Your task to perform on an android device: allow cookies in the chrome app Image 0: 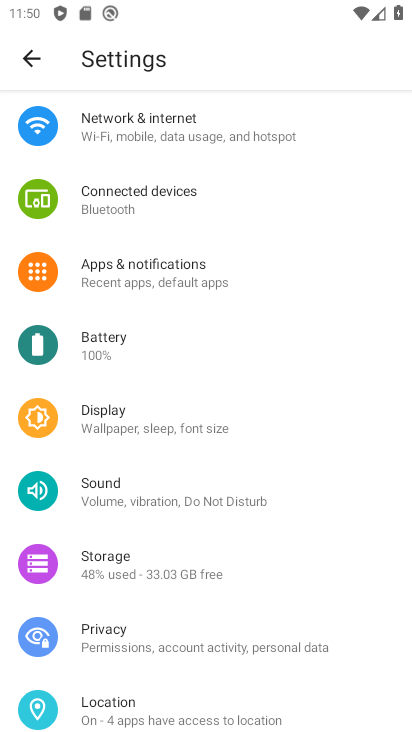
Step 0: press home button
Your task to perform on an android device: allow cookies in the chrome app Image 1: 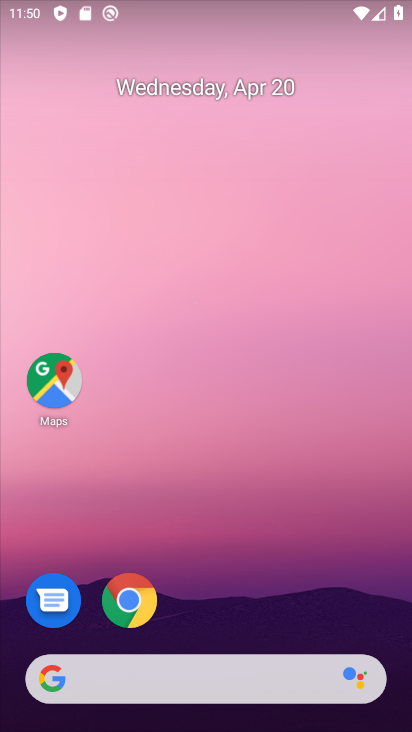
Step 1: click (132, 611)
Your task to perform on an android device: allow cookies in the chrome app Image 2: 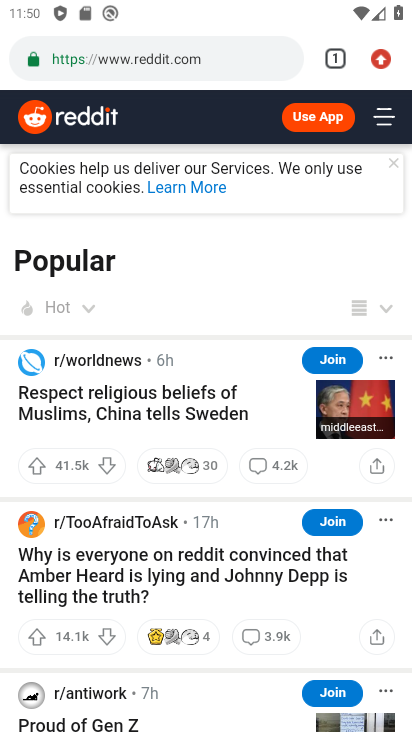
Step 2: click (378, 52)
Your task to perform on an android device: allow cookies in the chrome app Image 3: 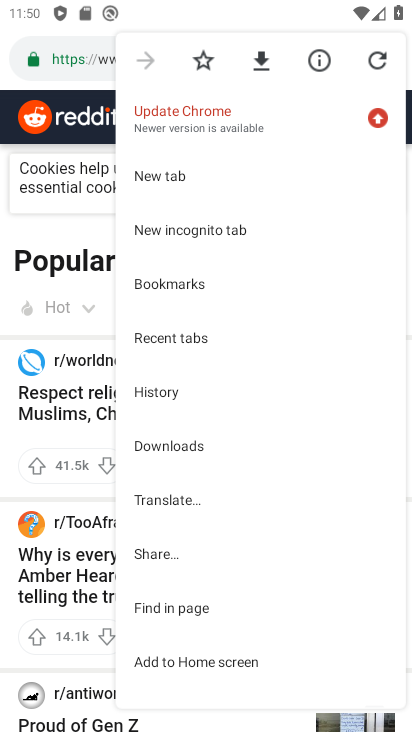
Step 3: drag from (259, 560) to (311, 203)
Your task to perform on an android device: allow cookies in the chrome app Image 4: 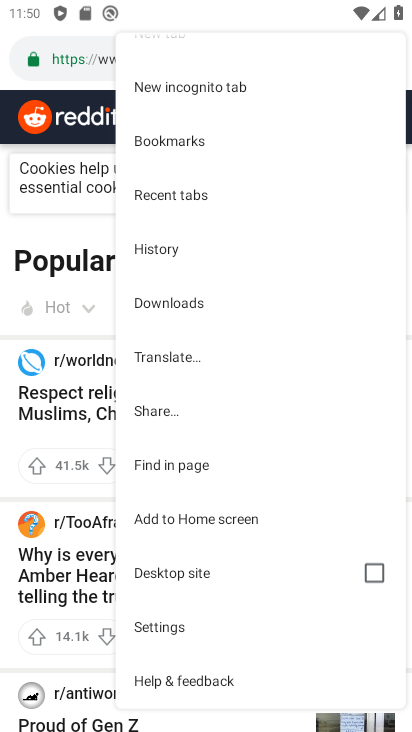
Step 4: click (206, 631)
Your task to perform on an android device: allow cookies in the chrome app Image 5: 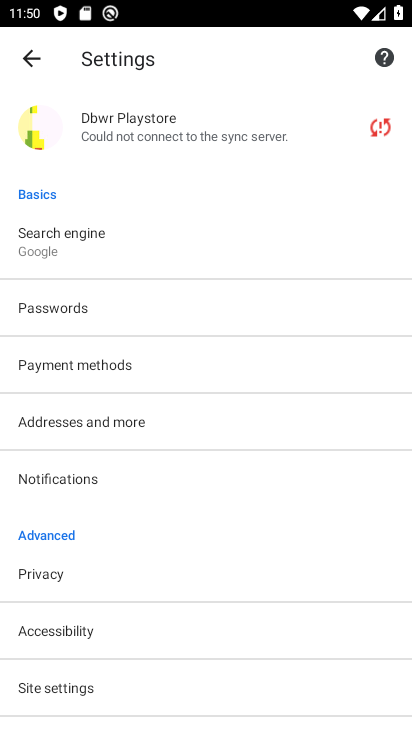
Step 5: drag from (242, 467) to (207, 226)
Your task to perform on an android device: allow cookies in the chrome app Image 6: 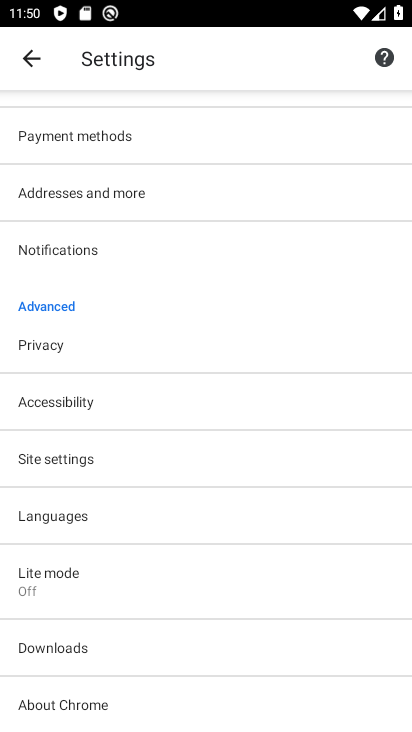
Step 6: click (166, 454)
Your task to perform on an android device: allow cookies in the chrome app Image 7: 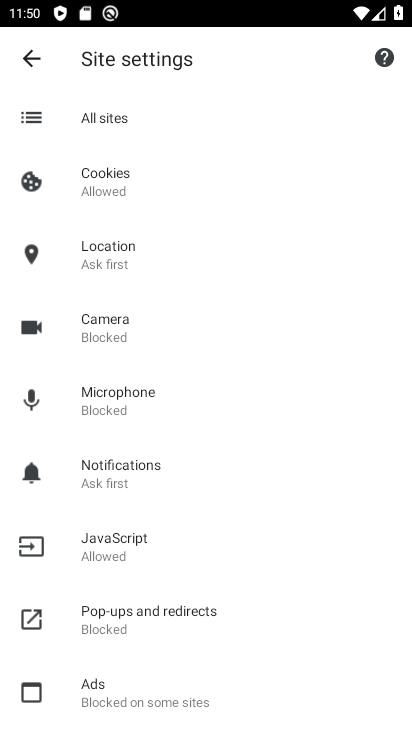
Step 7: click (154, 180)
Your task to perform on an android device: allow cookies in the chrome app Image 8: 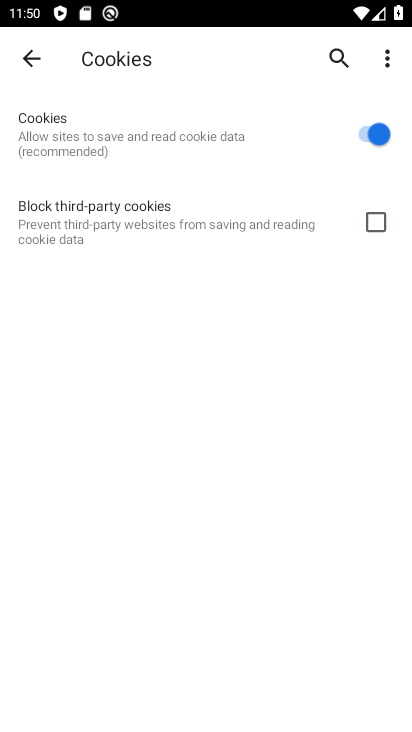
Step 8: task complete